Your task to perform on an android device: change the clock style Image 0: 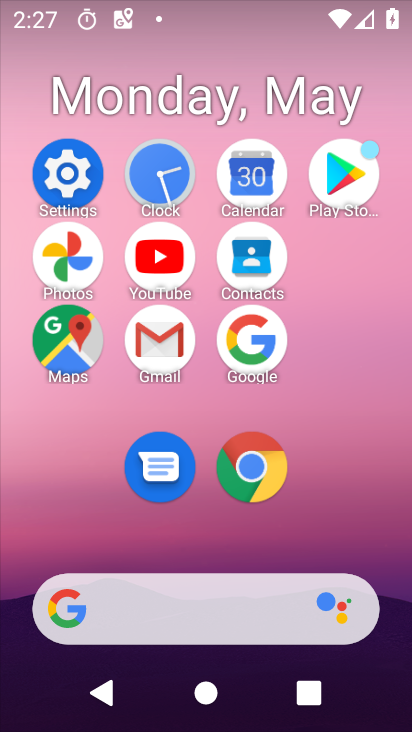
Step 0: click (164, 201)
Your task to perform on an android device: change the clock style Image 1: 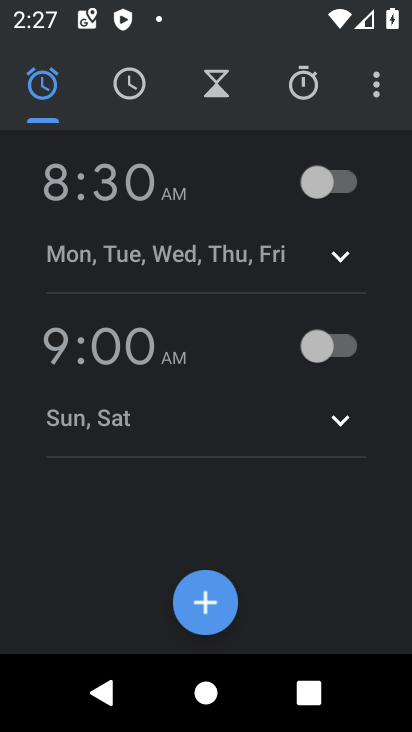
Step 1: click (361, 92)
Your task to perform on an android device: change the clock style Image 2: 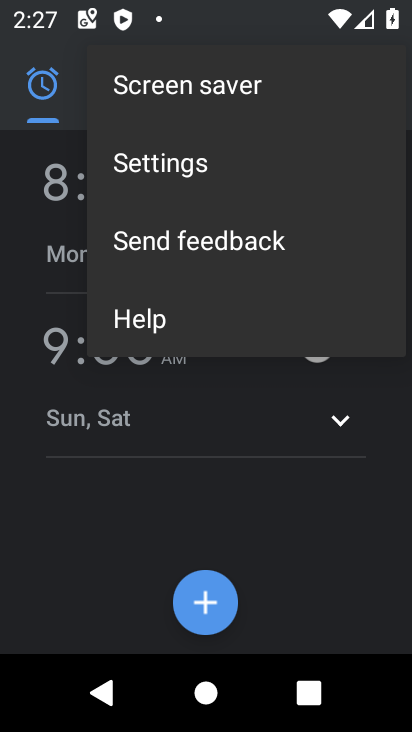
Step 2: click (287, 164)
Your task to perform on an android device: change the clock style Image 3: 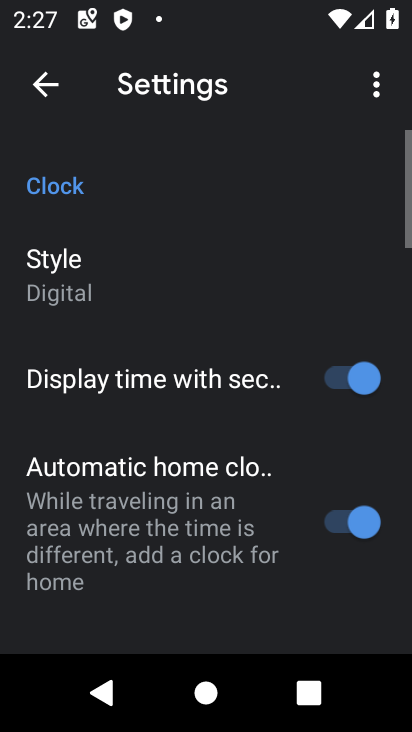
Step 3: click (52, 258)
Your task to perform on an android device: change the clock style Image 4: 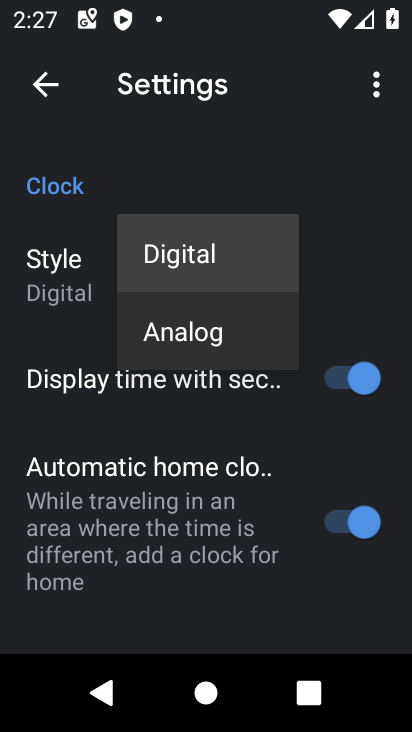
Step 4: click (235, 350)
Your task to perform on an android device: change the clock style Image 5: 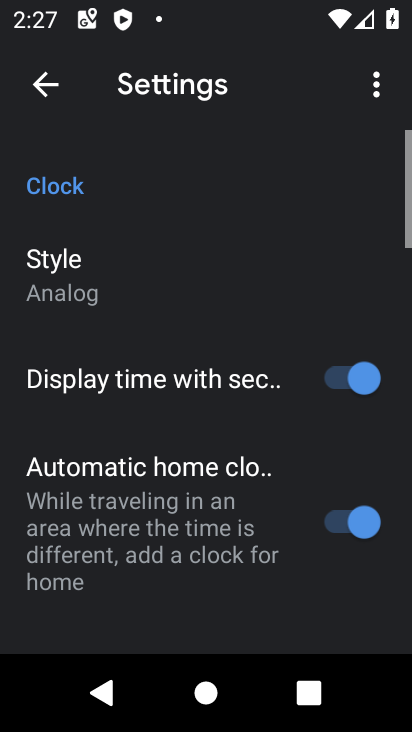
Step 5: task complete